Your task to perform on an android device: check google app version Image 0: 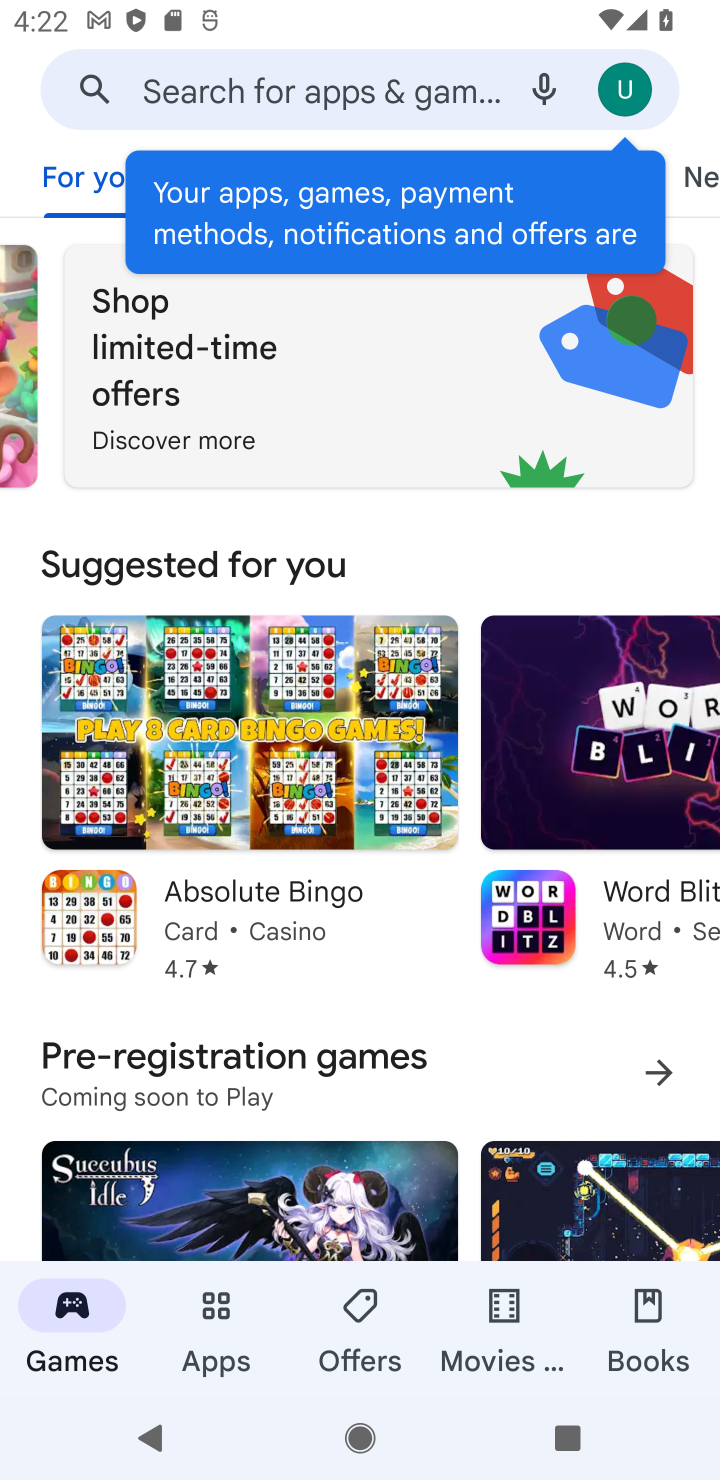
Step 0: press home button
Your task to perform on an android device: check google app version Image 1: 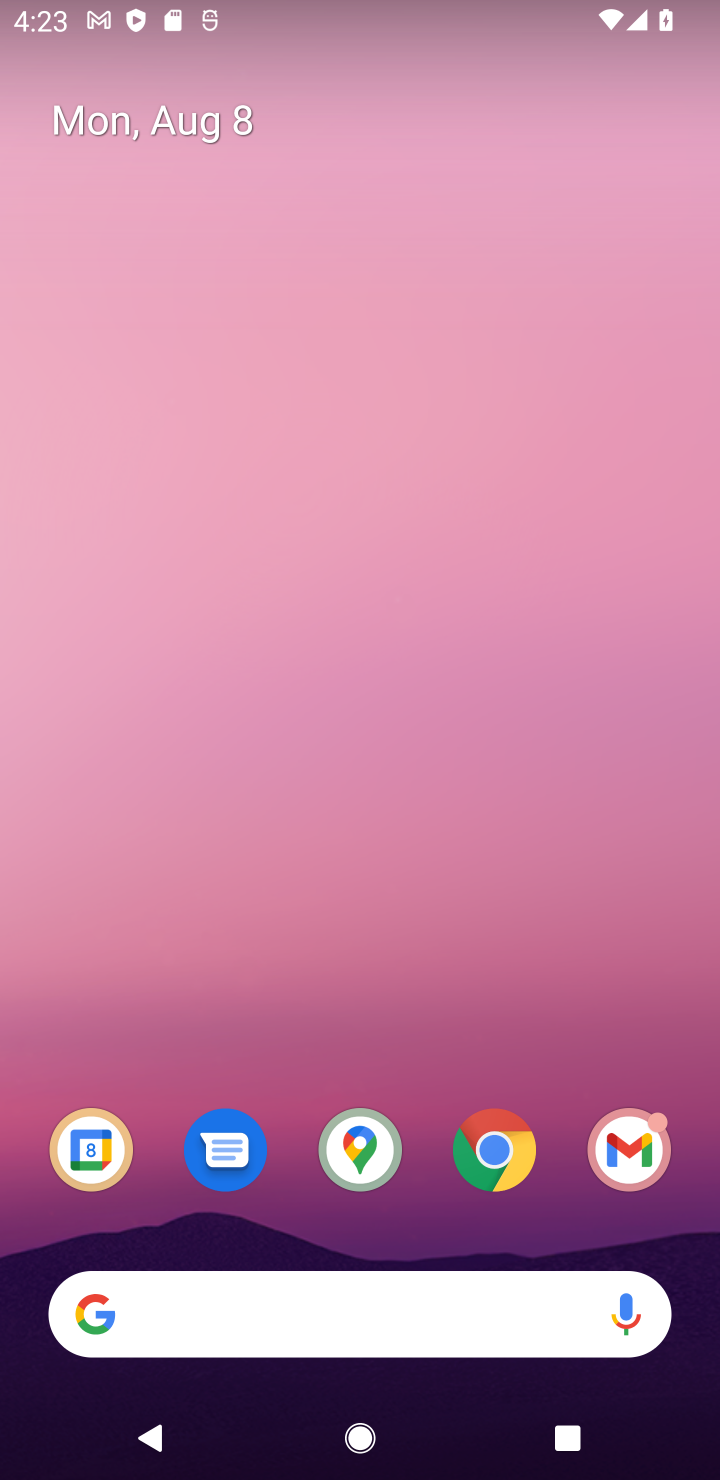
Step 1: click (362, 1156)
Your task to perform on an android device: check google app version Image 2: 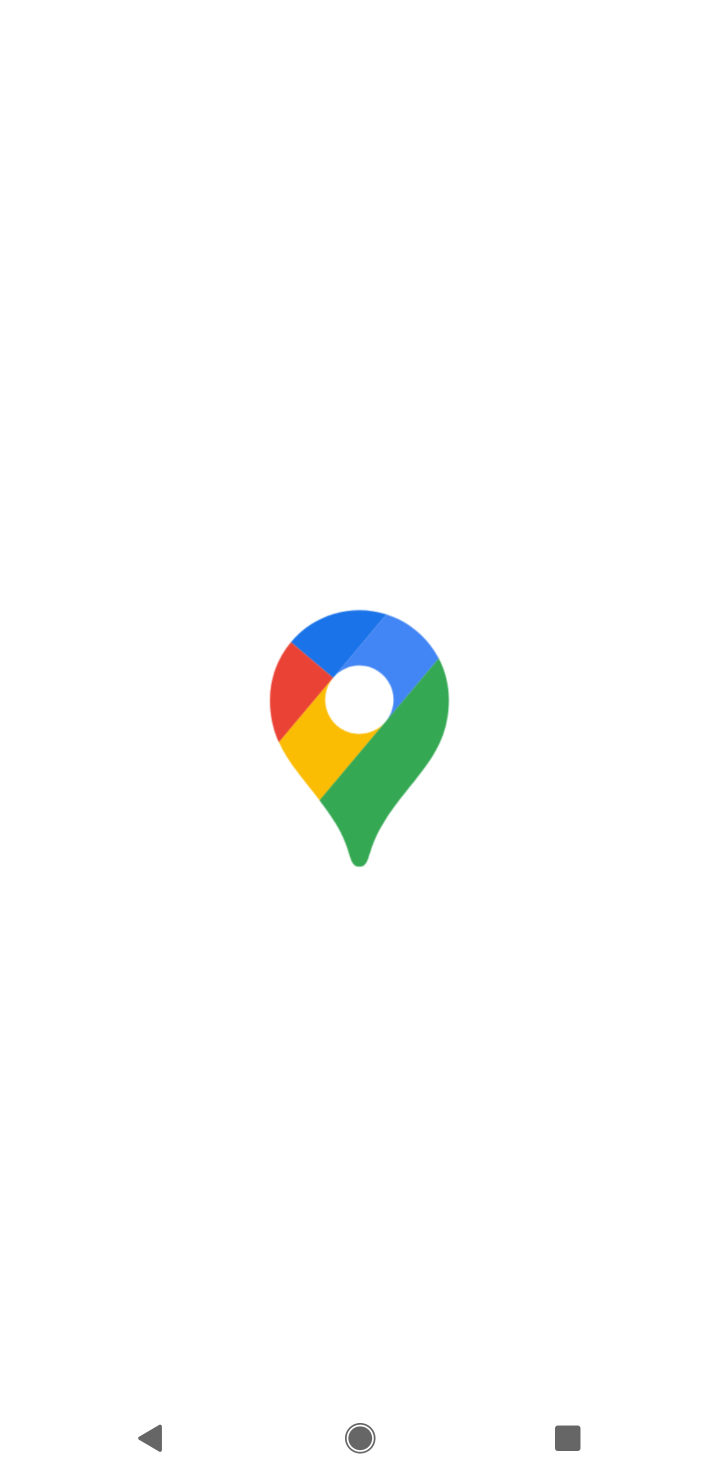
Step 2: task complete